Your task to perform on an android device: change the clock display to show seconds Image 0: 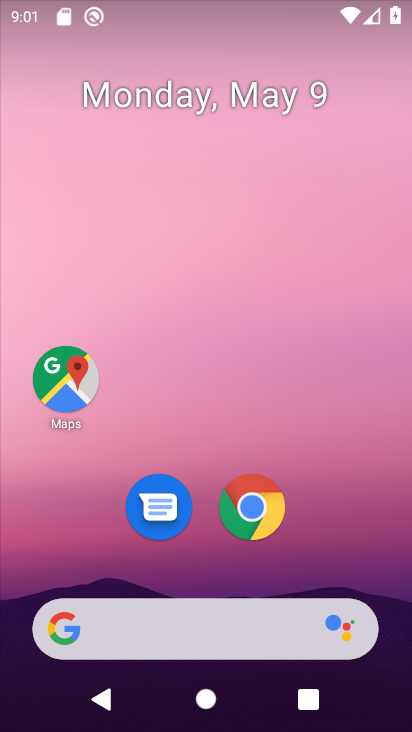
Step 0: drag from (98, 584) to (255, 101)
Your task to perform on an android device: change the clock display to show seconds Image 1: 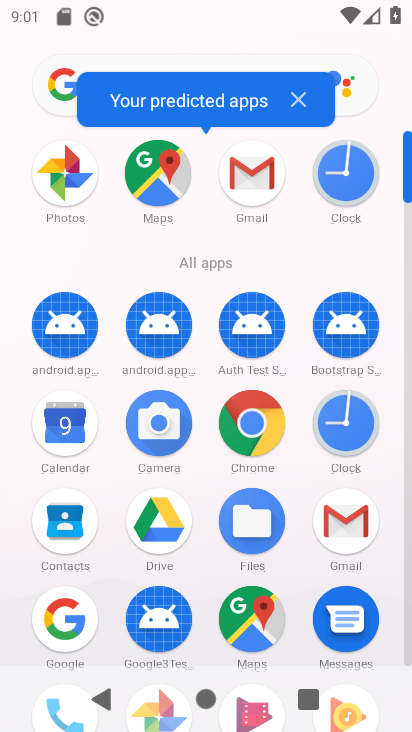
Step 1: click (352, 416)
Your task to perform on an android device: change the clock display to show seconds Image 2: 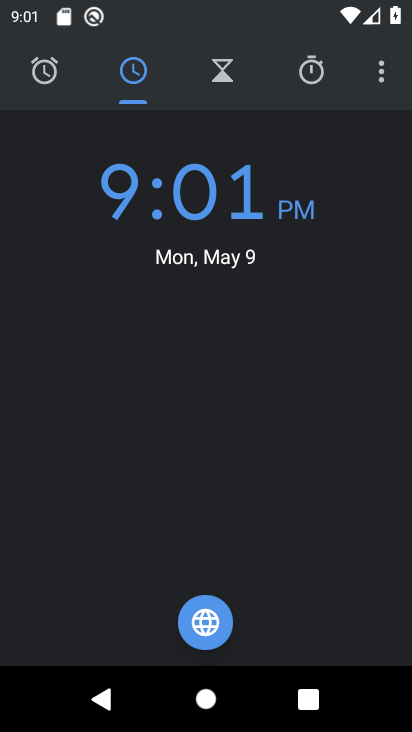
Step 2: click (394, 71)
Your task to perform on an android device: change the clock display to show seconds Image 3: 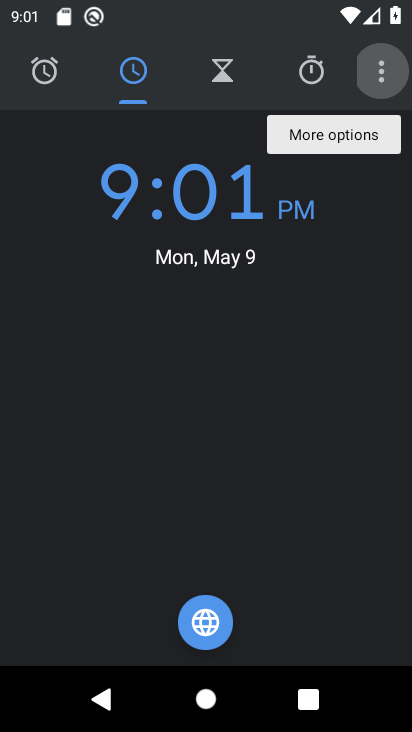
Step 3: click (390, 92)
Your task to perform on an android device: change the clock display to show seconds Image 4: 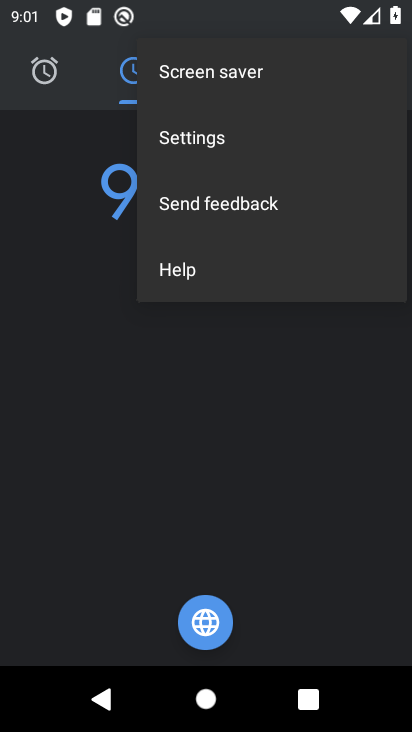
Step 4: click (305, 136)
Your task to perform on an android device: change the clock display to show seconds Image 5: 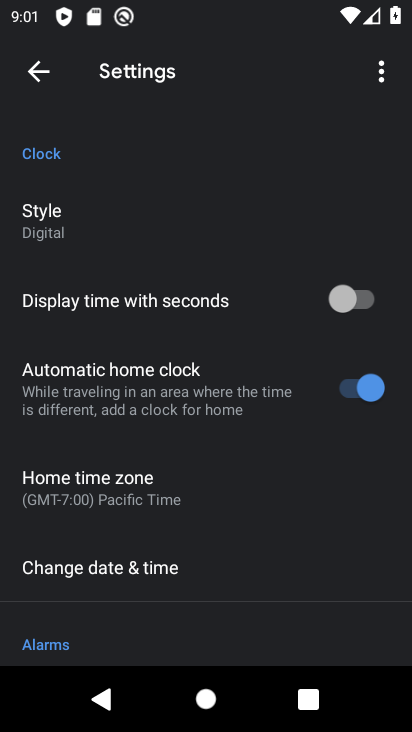
Step 5: click (376, 300)
Your task to perform on an android device: change the clock display to show seconds Image 6: 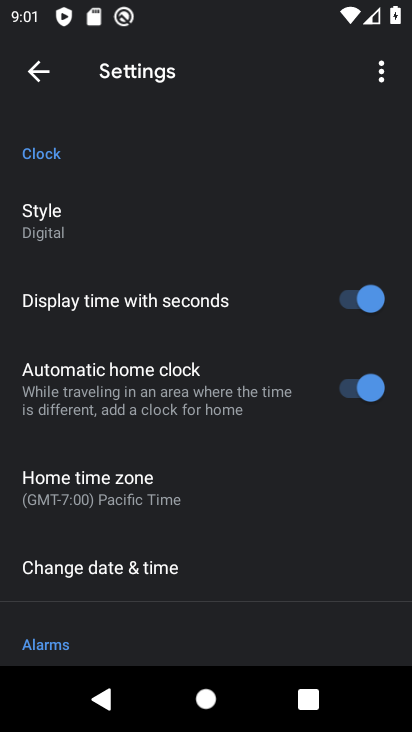
Step 6: click (138, 215)
Your task to perform on an android device: change the clock display to show seconds Image 7: 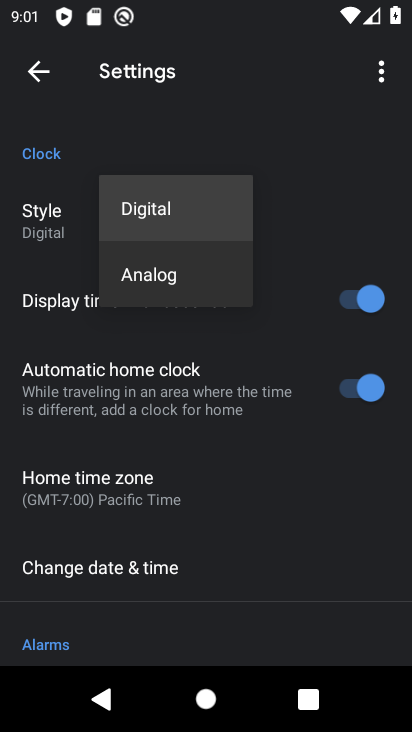
Step 7: click (141, 270)
Your task to perform on an android device: change the clock display to show seconds Image 8: 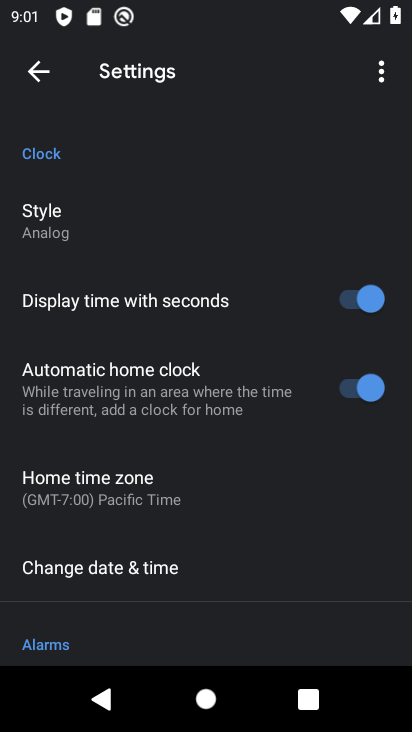
Step 8: task complete